Your task to perform on an android device: Open Google Chrome and open the bookmarks view Image 0: 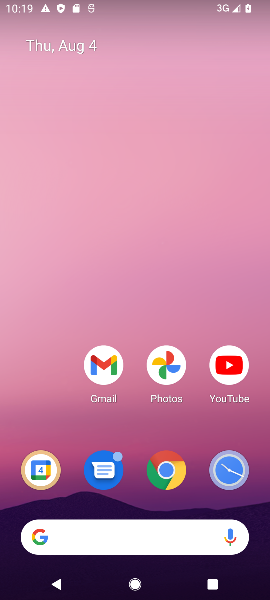
Step 0: click (162, 473)
Your task to perform on an android device: Open Google Chrome and open the bookmarks view Image 1: 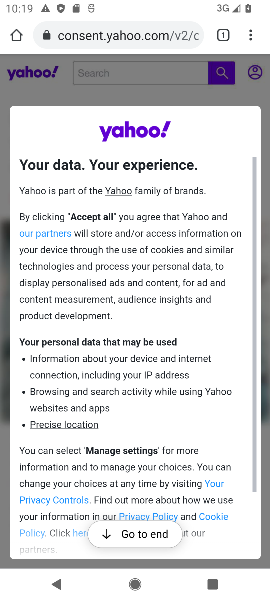
Step 1: click (254, 34)
Your task to perform on an android device: Open Google Chrome and open the bookmarks view Image 2: 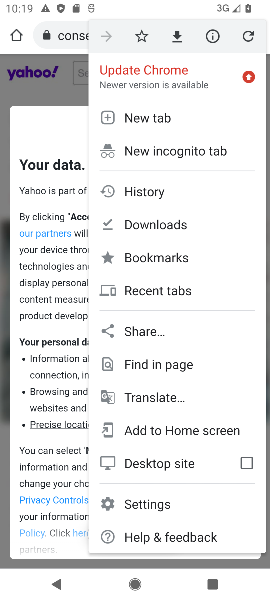
Step 2: click (137, 268)
Your task to perform on an android device: Open Google Chrome and open the bookmarks view Image 3: 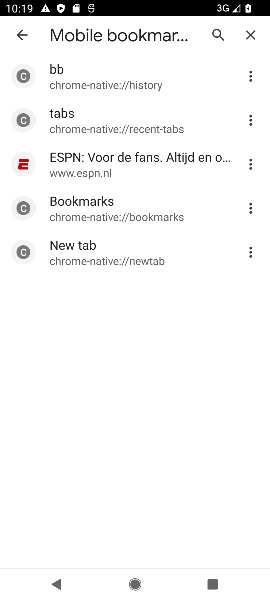
Step 3: task complete